Your task to perform on an android device: Do I have any events today? Image 0: 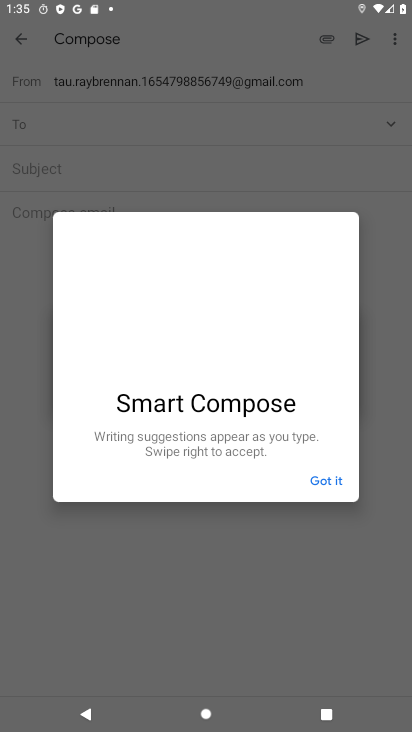
Step 0: press home button
Your task to perform on an android device: Do I have any events today? Image 1: 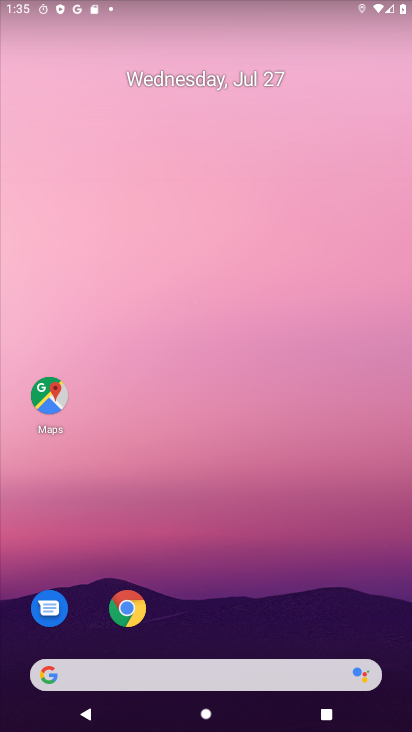
Step 1: drag from (187, 417) to (195, 22)
Your task to perform on an android device: Do I have any events today? Image 2: 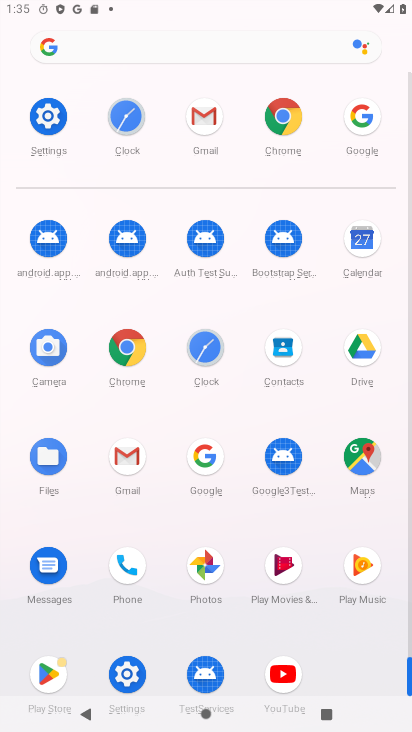
Step 2: click (360, 248)
Your task to perform on an android device: Do I have any events today? Image 3: 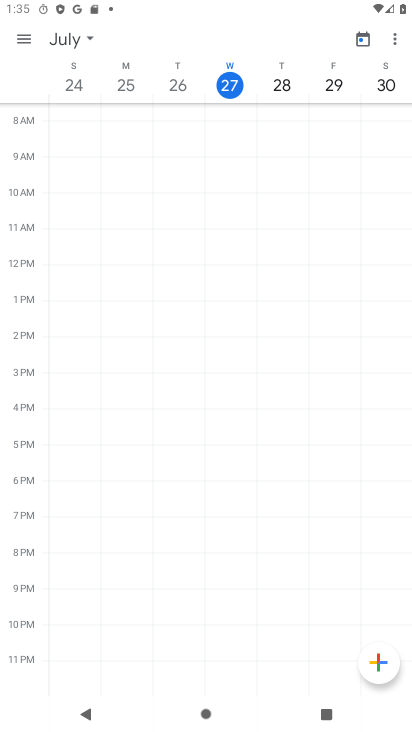
Step 3: task complete